Your task to perform on an android device: Open calendar and show me the third week of next month Image 0: 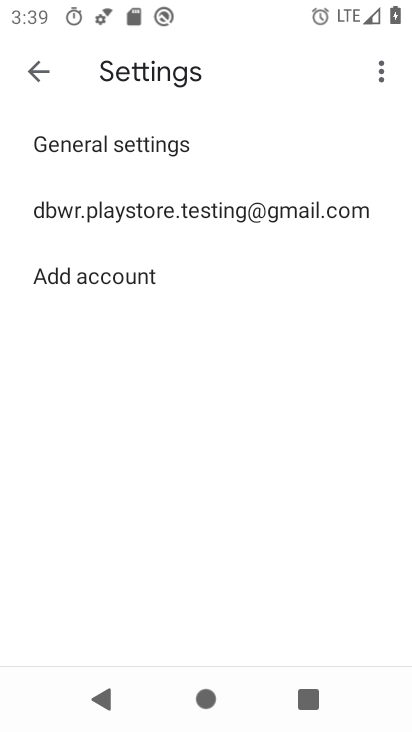
Step 0: press home button
Your task to perform on an android device: Open calendar and show me the third week of next month Image 1: 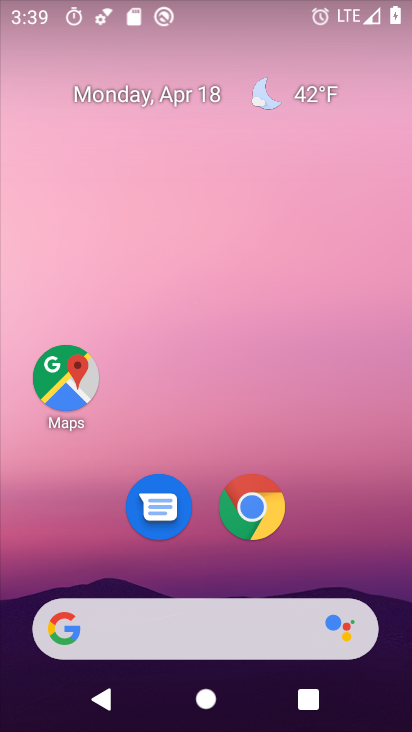
Step 1: drag from (347, 427) to (347, 154)
Your task to perform on an android device: Open calendar and show me the third week of next month Image 2: 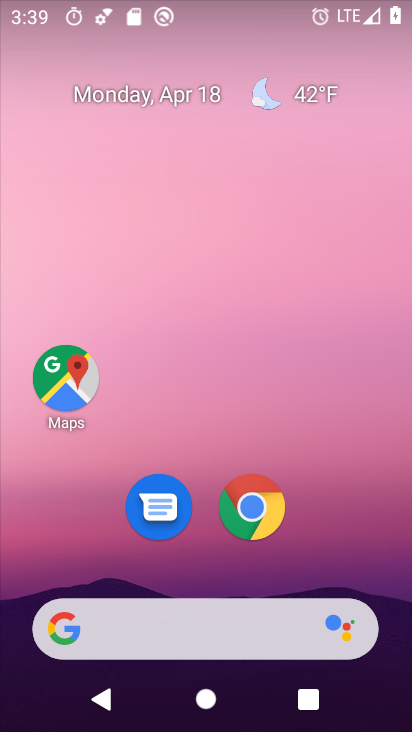
Step 2: drag from (348, 487) to (352, 126)
Your task to perform on an android device: Open calendar and show me the third week of next month Image 3: 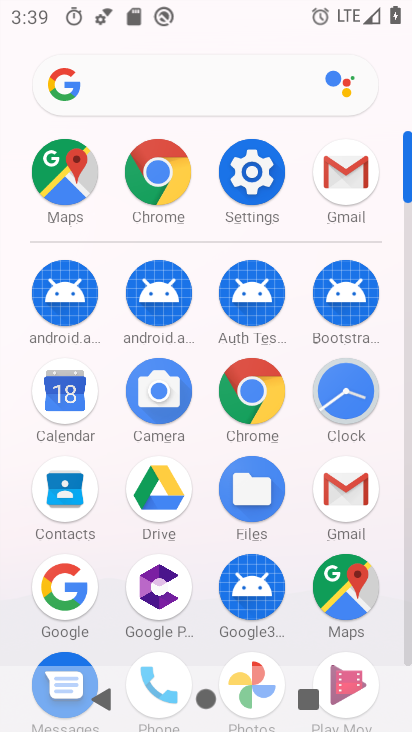
Step 3: click (76, 398)
Your task to perform on an android device: Open calendar and show me the third week of next month Image 4: 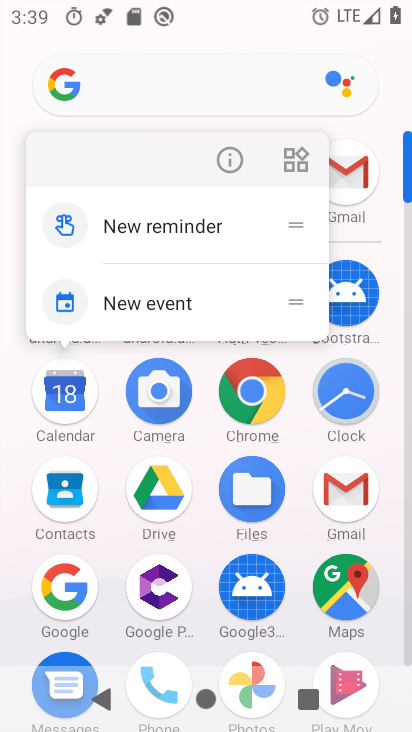
Step 4: click (76, 397)
Your task to perform on an android device: Open calendar and show me the third week of next month Image 5: 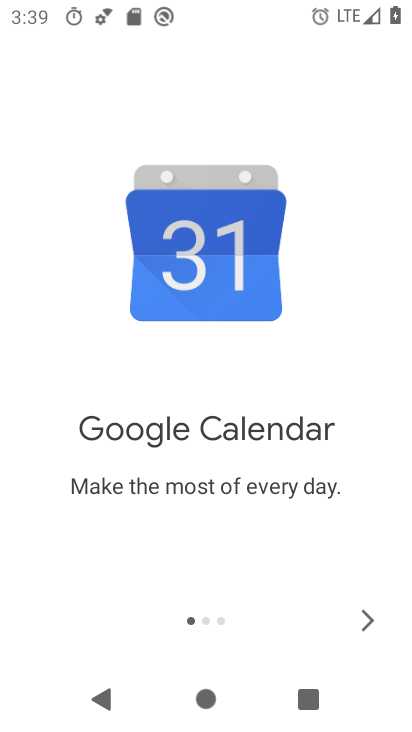
Step 5: click (366, 628)
Your task to perform on an android device: Open calendar and show me the third week of next month Image 6: 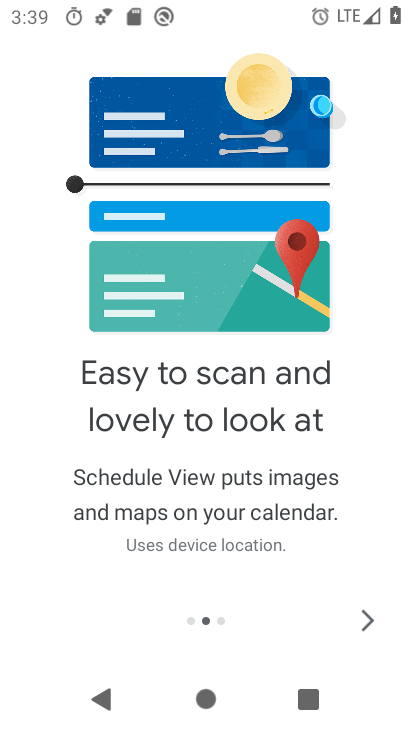
Step 6: click (366, 628)
Your task to perform on an android device: Open calendar and show me the third week of next month Image 7: 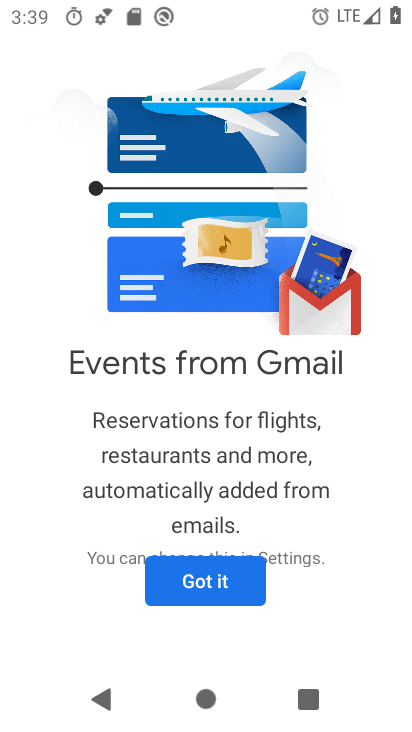
Step 7: click (244, 591)
Your task to perform on an android device: Open calendar and show me the third week of next month Image 8: 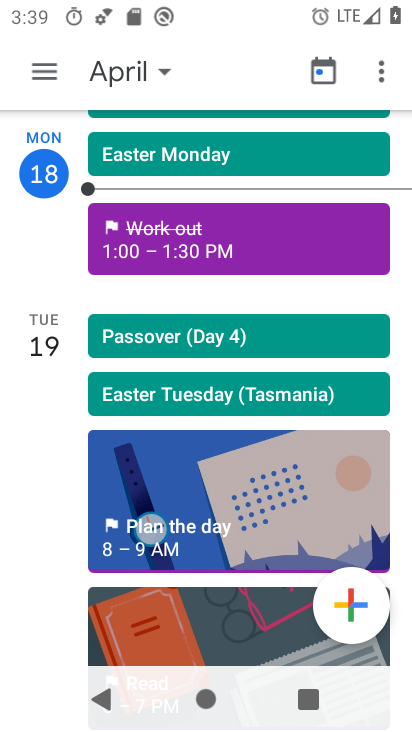
Step 8: click (122, 80)
Your task to perform on an android device: Open calendar and show me the third week of next month Image 9: 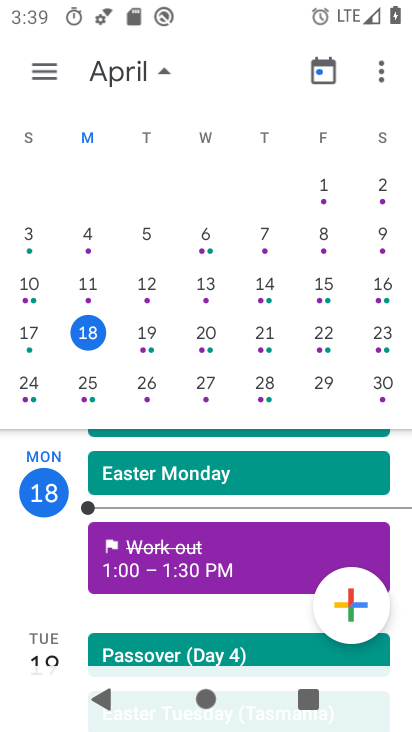
Step 9: drag from (361, 163) to (6, 181)
Your task to perform on an android device: Open calendar and show me the third week of next month Image 10: 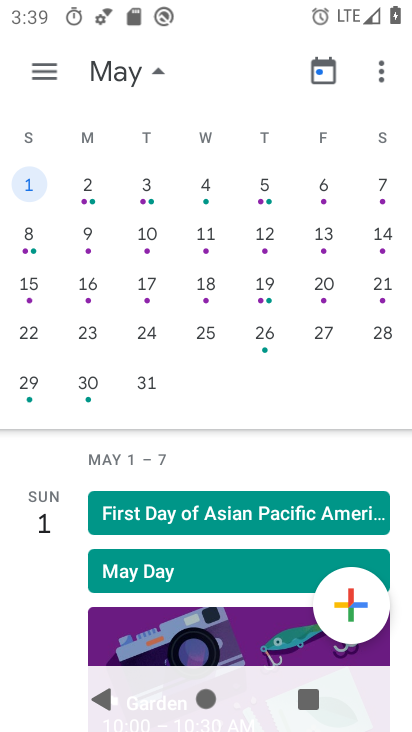
Step 10: click (27, 285)
Your task to perform on an android device: Open calendar and show me the third week of next month Image 11: 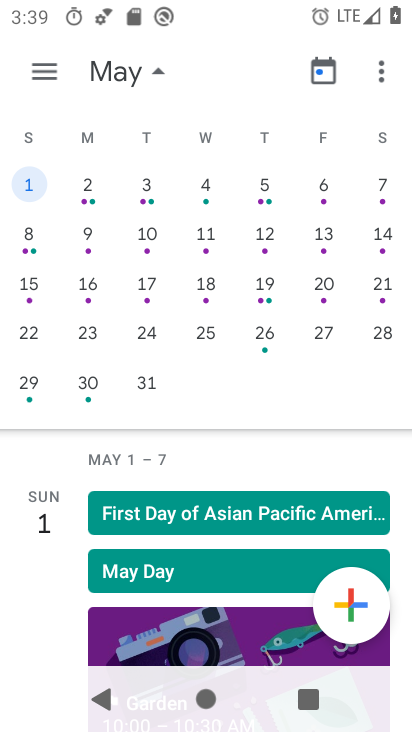
Step 11: click (31, 290)
Your task to perform on an android device: Open calendar and show me the third week of next month Image 12: 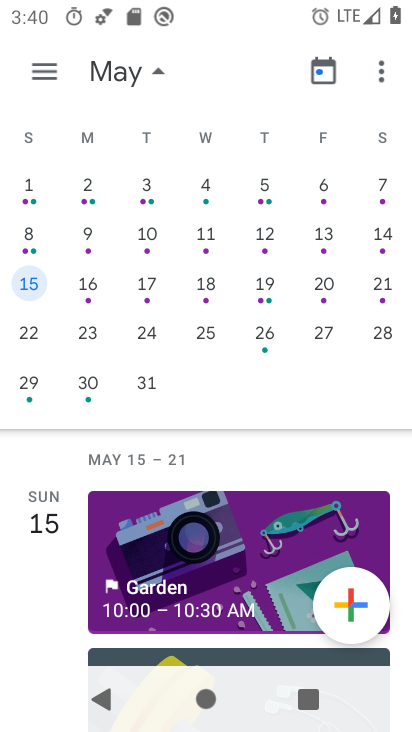
Step 12: task complete